Your task to perform on an android device: check the backup settings in the google photos Image 0: 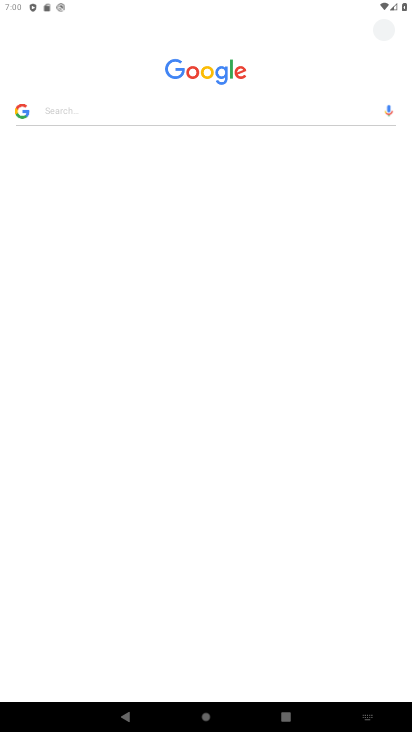
Step 0: press home button
Your task to perform on an android device: check the backup settings in the google photos Image 1: 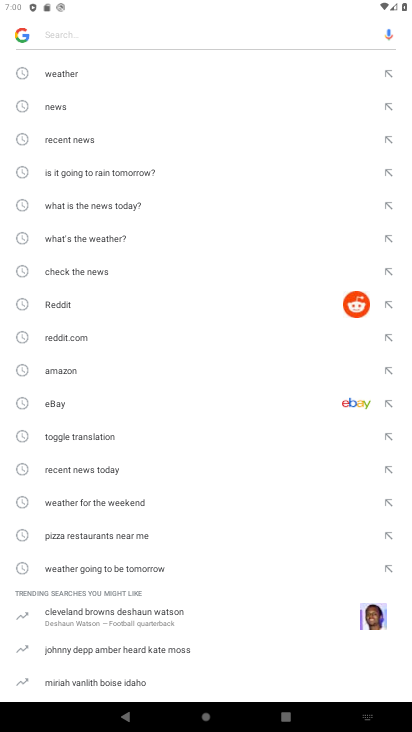
Step 1: drag from (324, 352) to (235, 3)
Your task to perform on an android device: check the backup settings in the google photos Image 2: 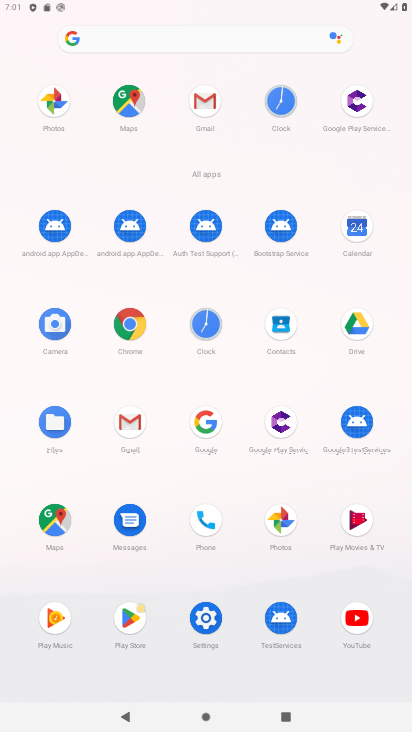
Step 2: click (286, 522)
Your task to perform on an android device: check the backup settings in the google photos Image 3: 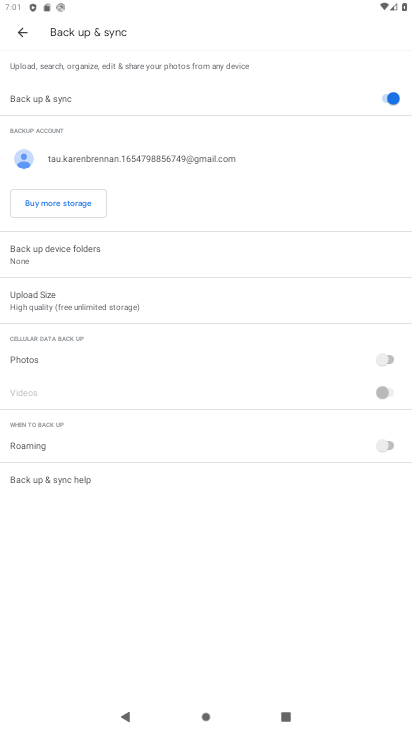
Step 3: click (210, 57)
Your task to perform on an android device: check the backup settings in the google photos Image 4: 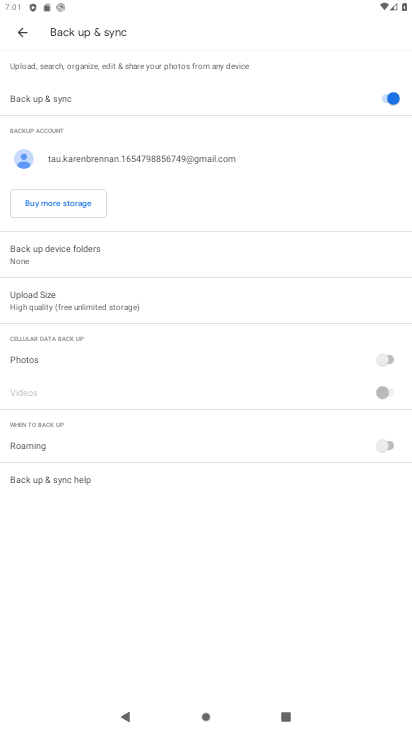
Step 4: task complete